Your task to perform on an android device: toggle data saver in the chrome app Image 0: 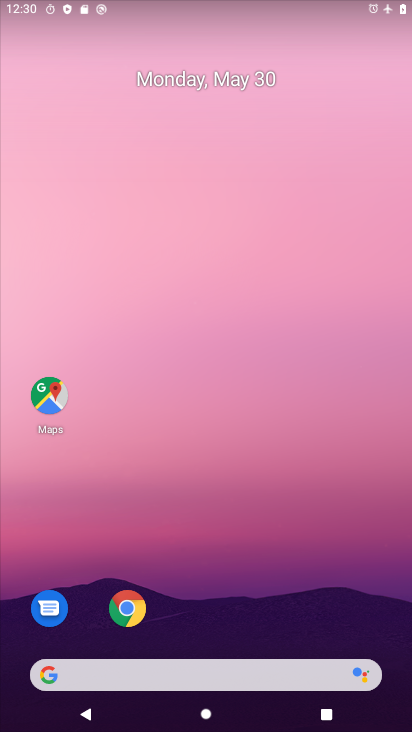
Step 0: click (125, 620)
Your task to perform on an android device: toggle data saver in the chrome app Image 1: 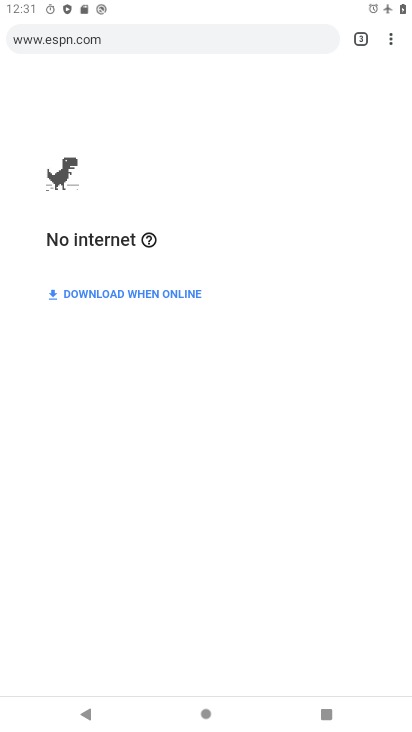
Step 1: click (397, 42)
Your task to perform on an android device: toggle data saver in the chrome app Image 2: 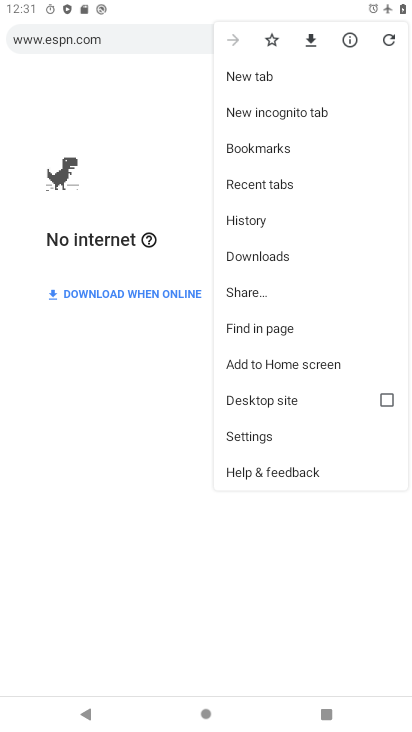
Step 2: click (272, 436)
Your task to perform on an android device: toggle data saver in the chrome app Image 3: 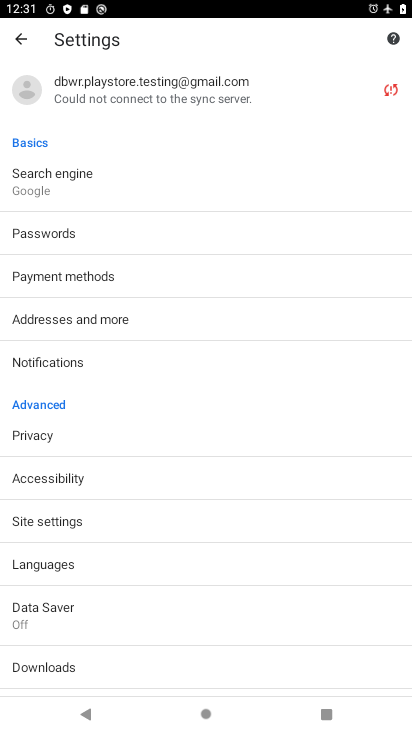
Step 3: click (42, 625)
Your task to perform on an android device: toggle data saver in the chrome app Image 4: 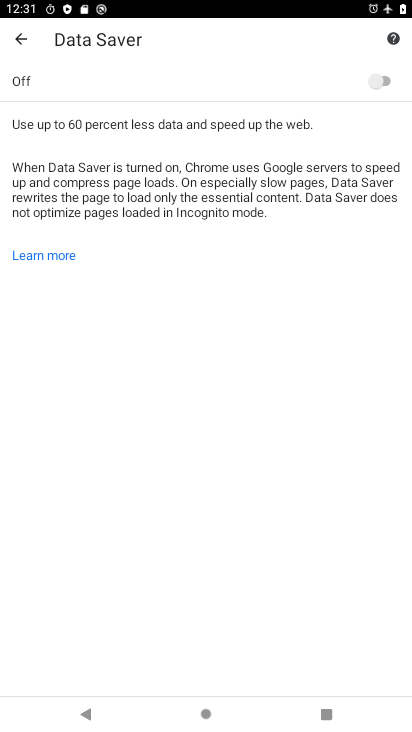
Step 4: click (377, 84)
Your task to perform on an android device: toggle data saver in the chrome app Image 5: 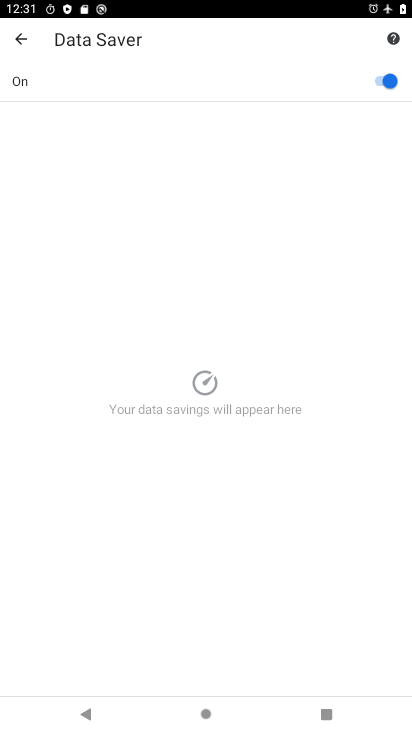
Step 5: task complete